Your task to perform on an android device: delete a single message in the gmail app Image 0: 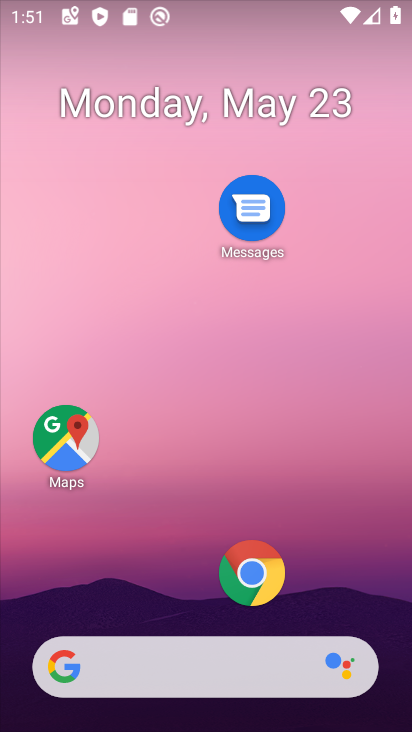
Step 0: drag from (181, 523) to (218, 9)
Your task to perform on an android device: delete a single message in the gmail app Image 1: 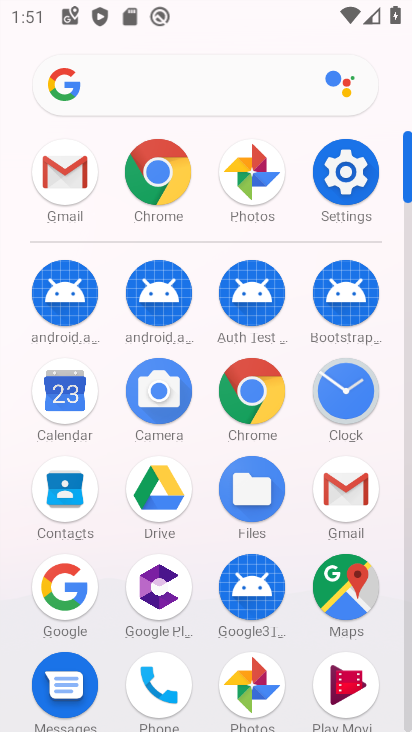
Step 1: click (66, 171)
Your task to perform on an android device: delete a single message in the gmail app Image 2: 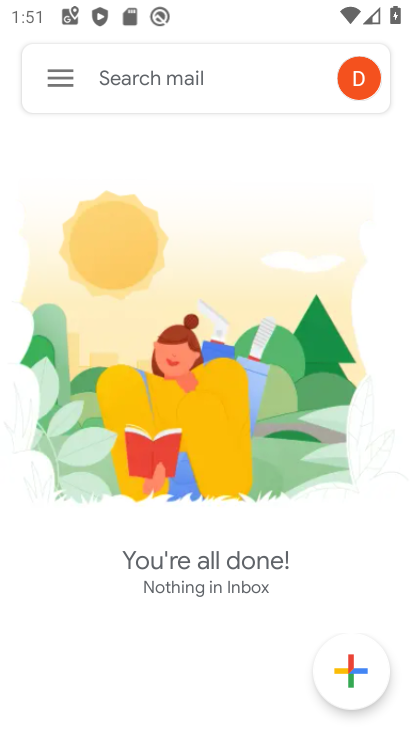
Step 2: click (69, 67)
Your task to perform on an android device: delete a single message in the gmail app Image 3: 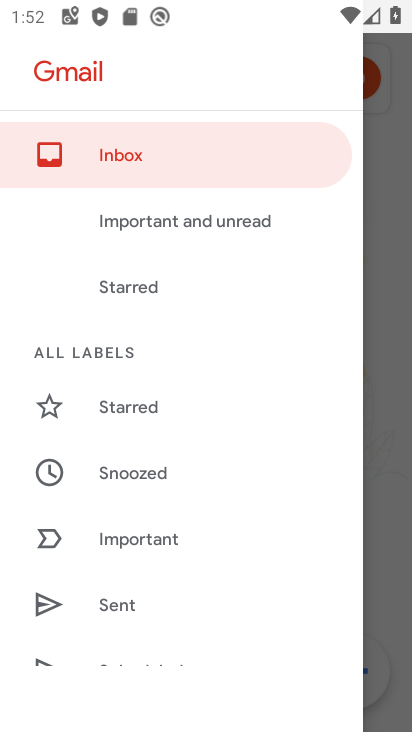
Step 3: click (128, 168)
Your task to perform on an android device: delete a single message in the gmail app Image 4: 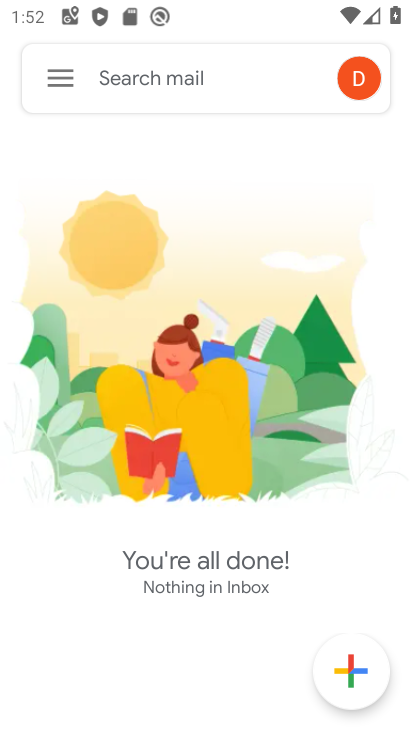
Step 4: task complete